Your task to perform on an android device: stop showing notifications on the lock screen Image 0: 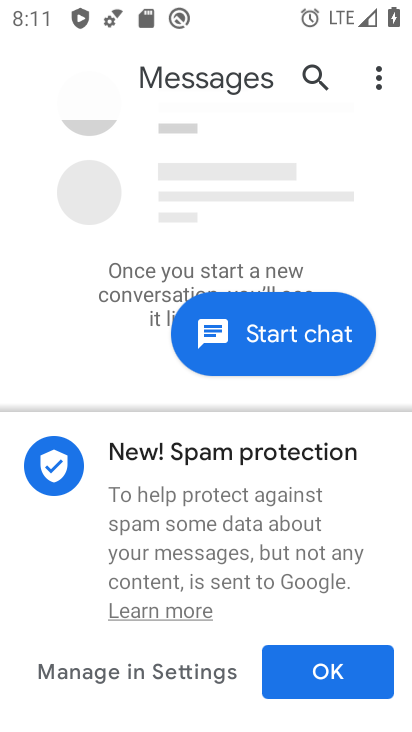
Step 0: press home button
Your task to perform on an android device: stop showing notifications on the lock screen Image 1: 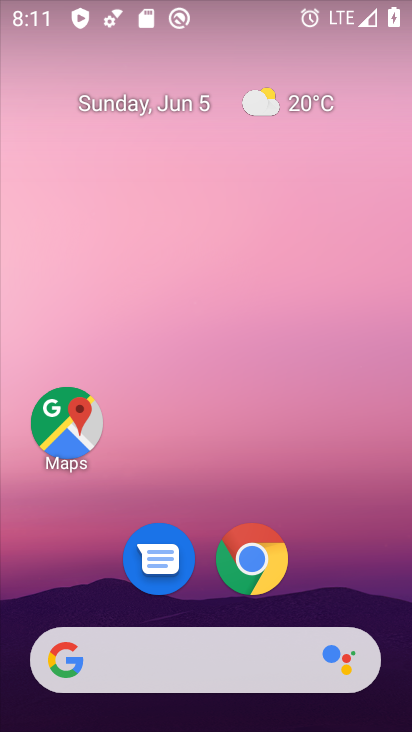
Step 1: drag from (332, 596) to (274, 184)
Your task to perform on an android device: stop showing notifications on the lock screen Image 2: 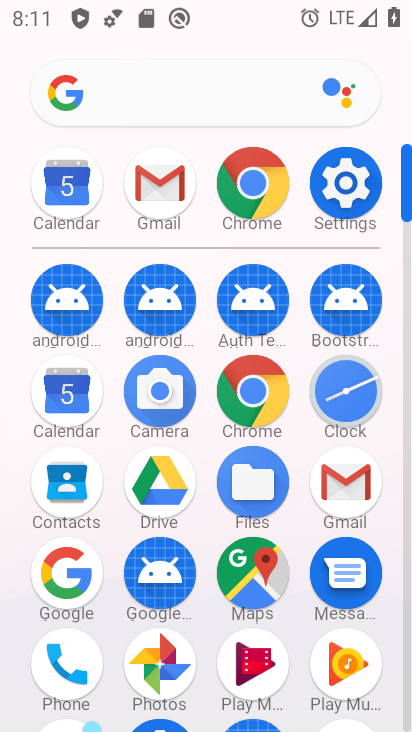
Step 2: click (349, 174)
Your task to perform on an android device: stop showing notifications on the lock screen Image 3: 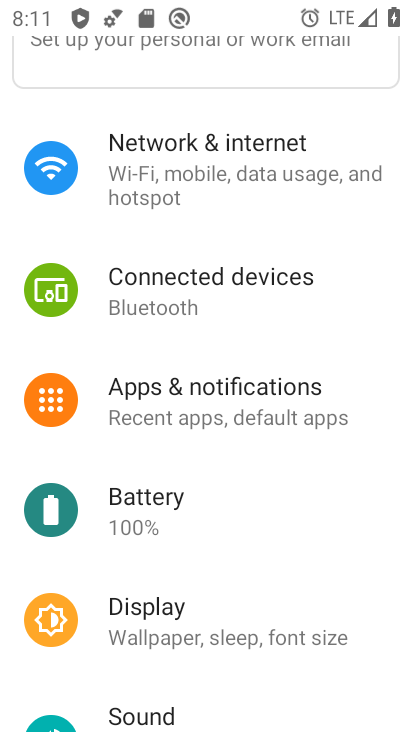
Step 3: click (192, 391)
Your task to perform on an android device: stop showing notifications on the lock screen Image 4: 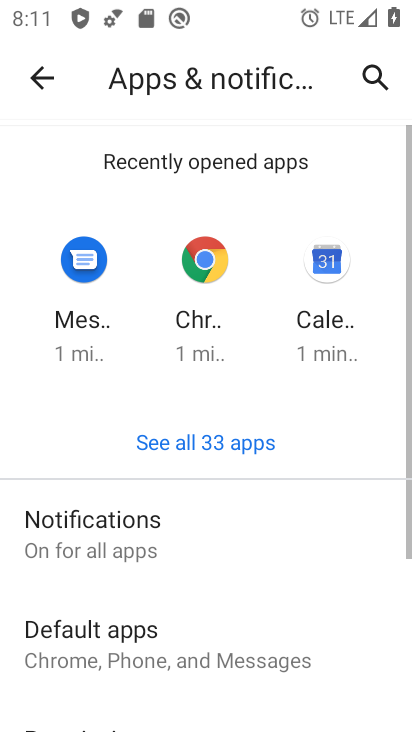
Step 4: click (142, 508)
Your task to perform on an android device: stop showing notifications on the lock screen Image 5: 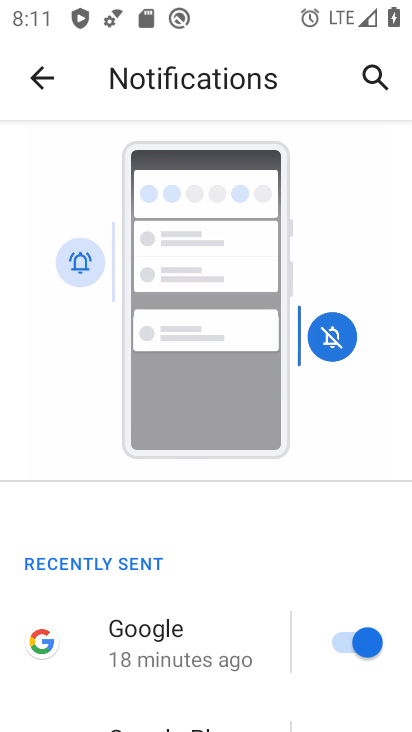
Step 5: drag from (139, 558) to (184, 134)
Your task to perform on an android device: stop showing notifications on the lock screen Image 6: 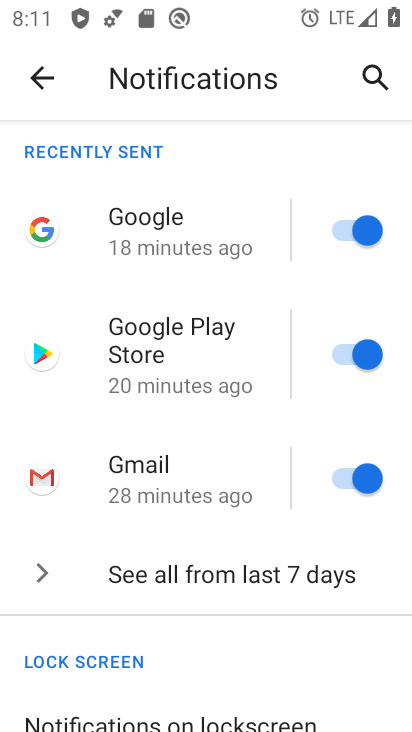
Step 6: drag from (152, 550) to (193, 151)
Your task to perform on an android device: stop showing notifications on the lock screen Image 7: 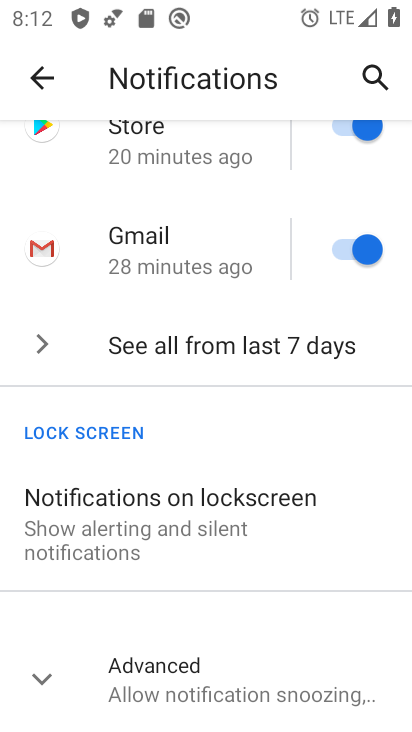
Step 7: click (166, 520)
Your task to perform on an android device: stop showing notifications on the lock screen Image 8: 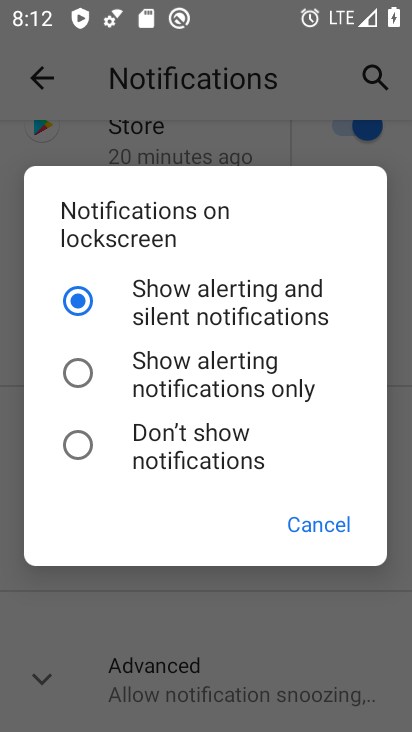
Step 8: click (179, 440)
Your task to perform on an android device: stop showing notifications on the lock screen Image 9: 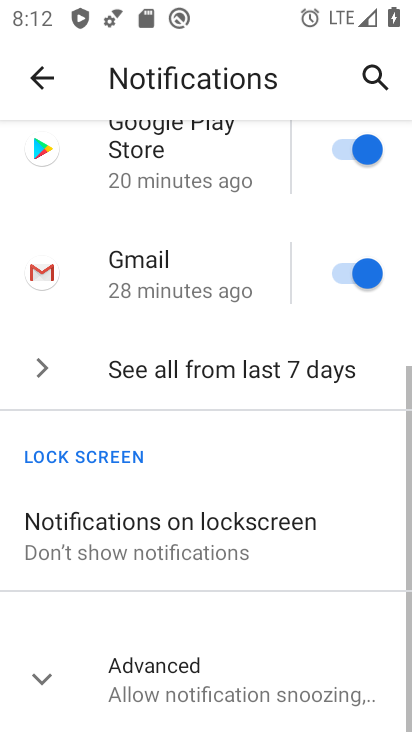
Step 9: task complete